Your task to perform on an android device: change text size in settings app Image 0: 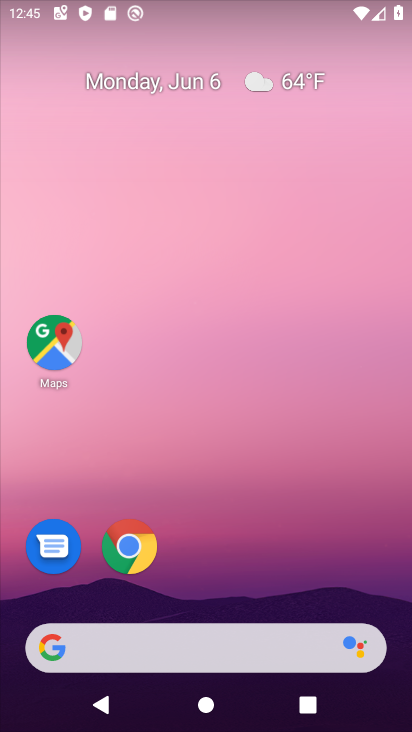
Step 0: drag from (191, 526) to (225, 249)
Your task to perform on an android device: change text size in settings app Image 1: 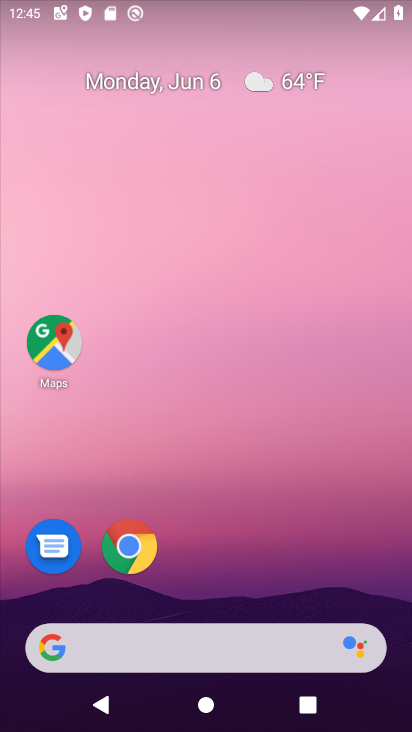
Step 1: drag from (237, 558) to (228, 272)
Your task to perform on an android device: change text size in settings app Image 2: 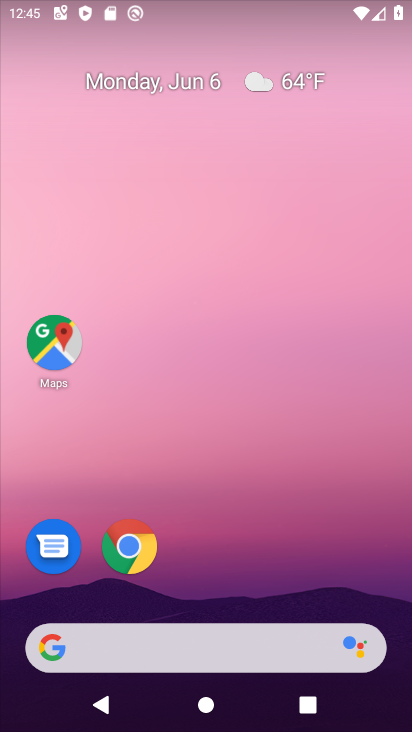
Step 2: drag from (205, 589) to (239, 234)
Your task to perform on an android device: change text size in settings app Image 3: 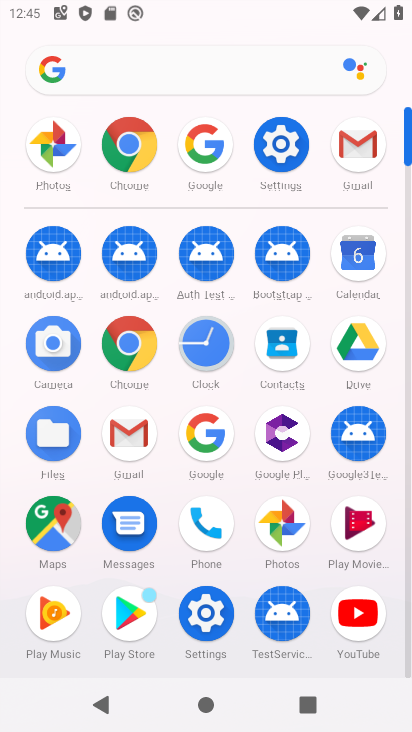
Step 3: click (274, 153)
Your task to perform on an android device: change text size in settings app Image 4: 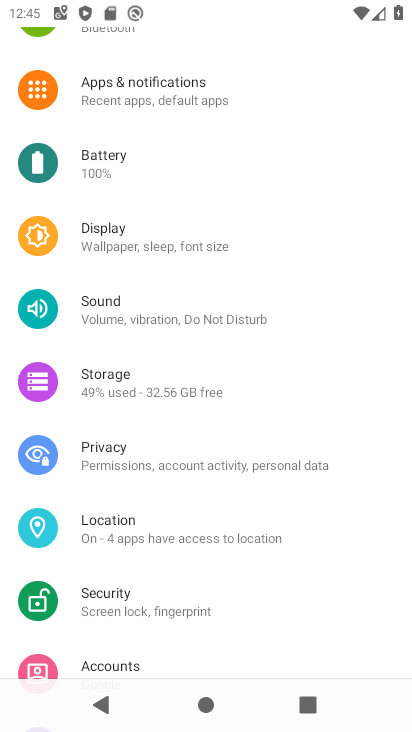
Step 4: drag from (144, 614) to (193, 380)
Your task to perform on an android device: change text size in settings app Image 5: 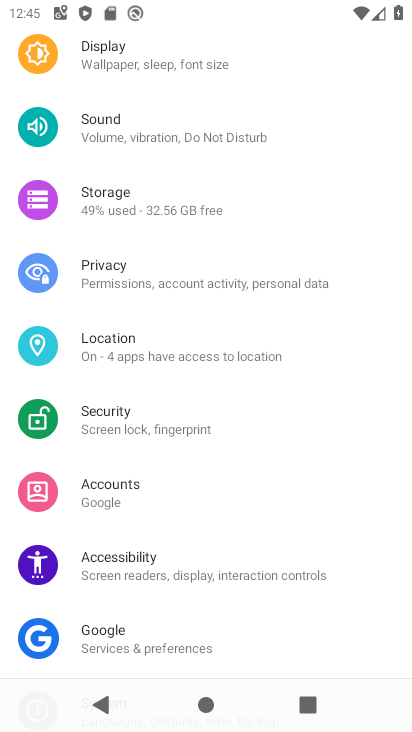
Step 5: drag from (127, 596) to (163, 375)
Your task to perform on an android device: change text size in settings app Image 6: 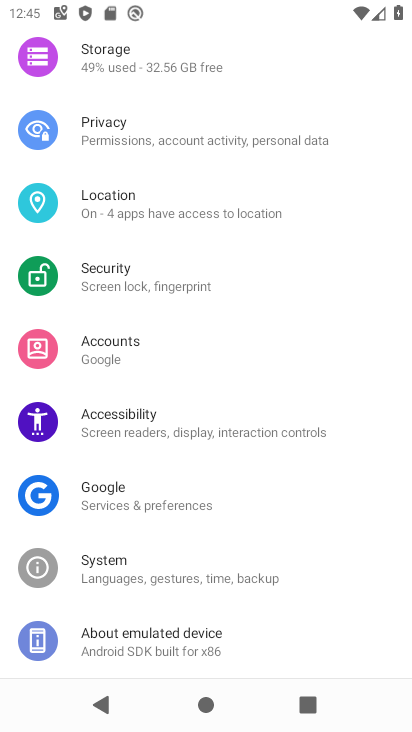
Step 6: click (152, 557)
Your task to perform on an android device: change text size in settings app Image 7: 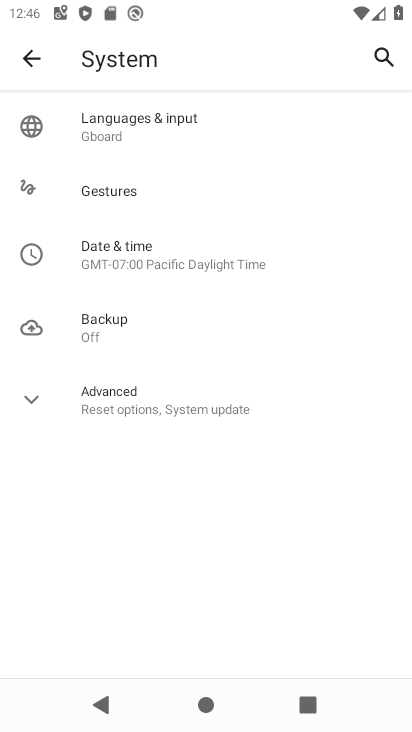
Step 7: click (38, 56)
Your task to perform on an android device: change text size in settings app Image 8: 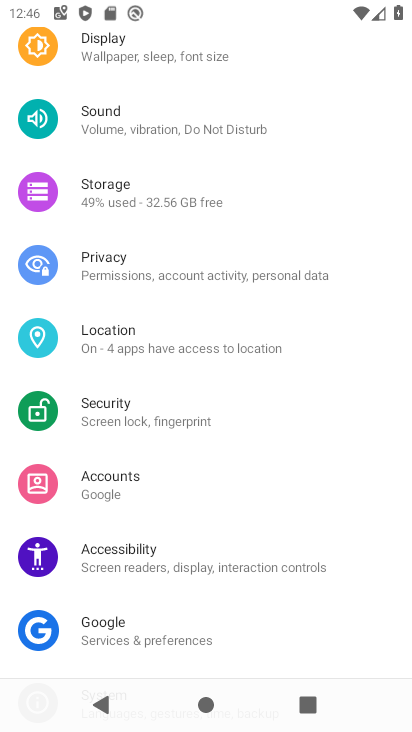
Step 8: click (149, 560)
Your task to perform on an android device: change text size in settings app Image 9: 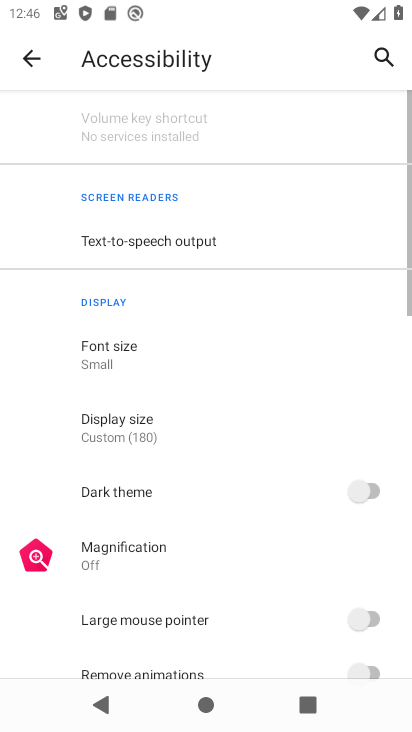
Step 9: click (124, 357)
Your task to perform on an android device: change text size in settings app Image 10: 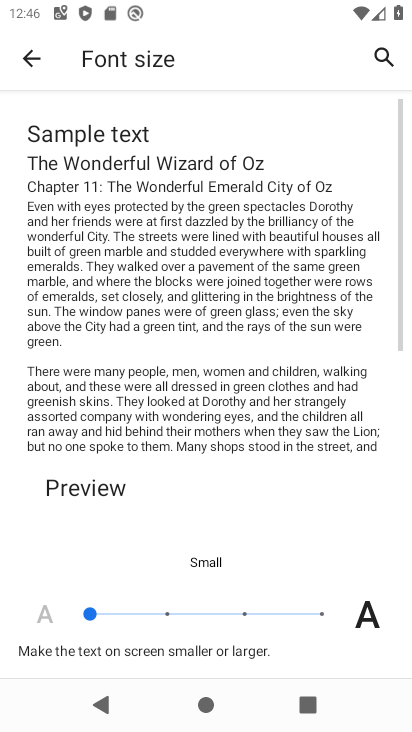
Step 10: click (169, 608)
Your task to perform on an android device: change text size in settings app Image 11: 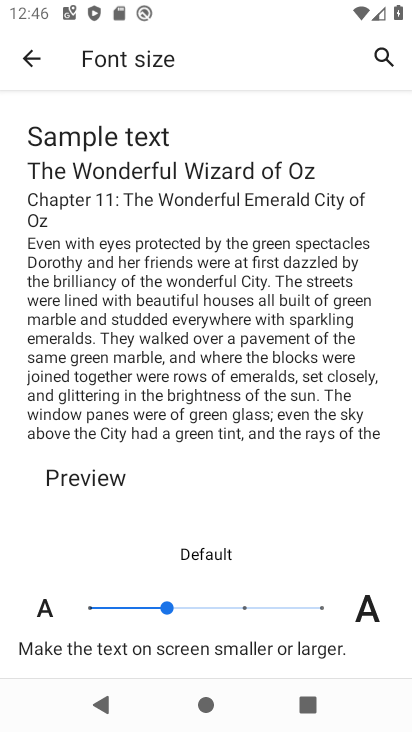
Step 11: task complete